Your task to perform on an android device: change notification settings in the gmail app Image 0: 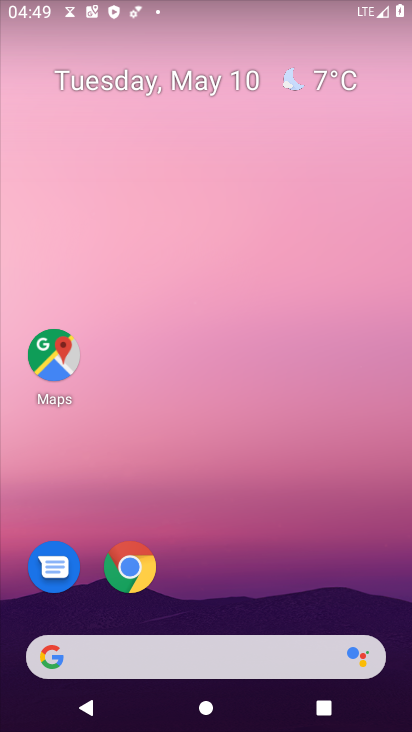
Step 0: drag from (280, 601) to (251, 110)
Your task to perform on an android device: change notification settings in the gmail app Image 1: 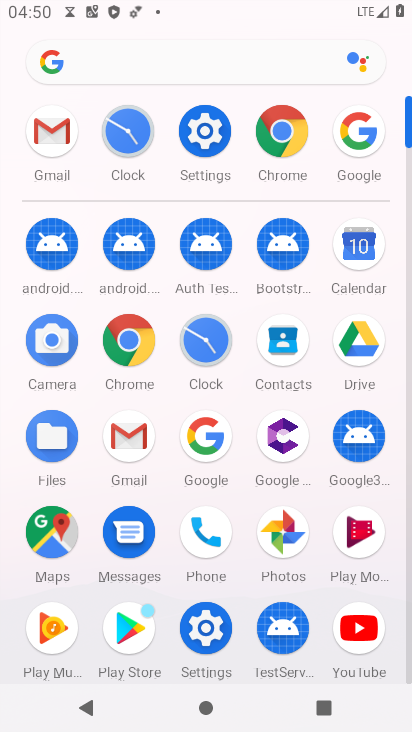
Step 1: click (123, 438)
Your task to perform on an android device: change notification settings in the gmail app Image 2: 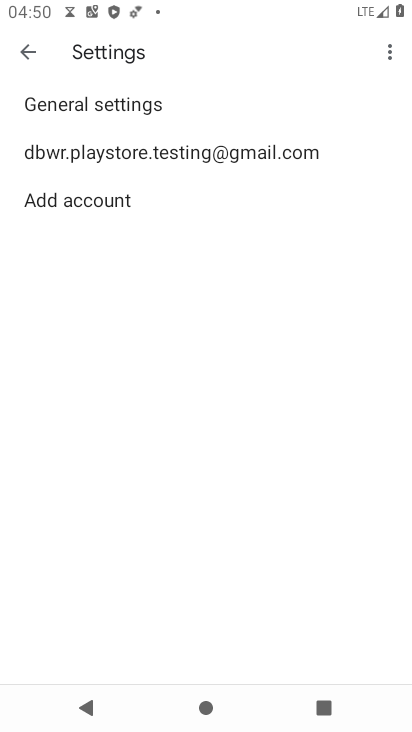
Step 2: click (178, 151)
Your task to perform on an android device: change notification settings in the gmail app Image 3: 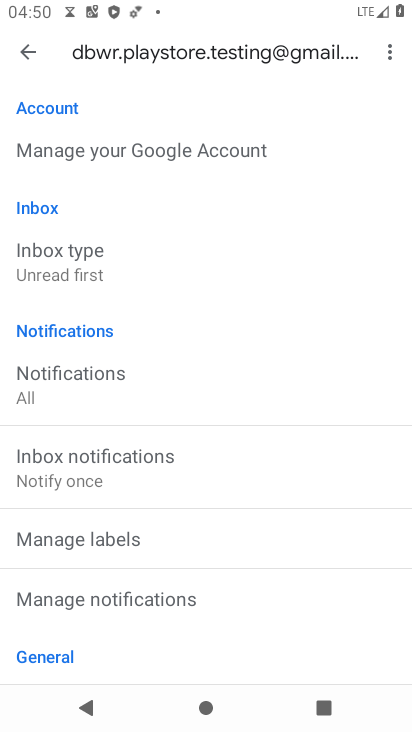
Step 3: click (77, 595)
Your task to perform on an android device: change notification settings in the gmail app Image 4: 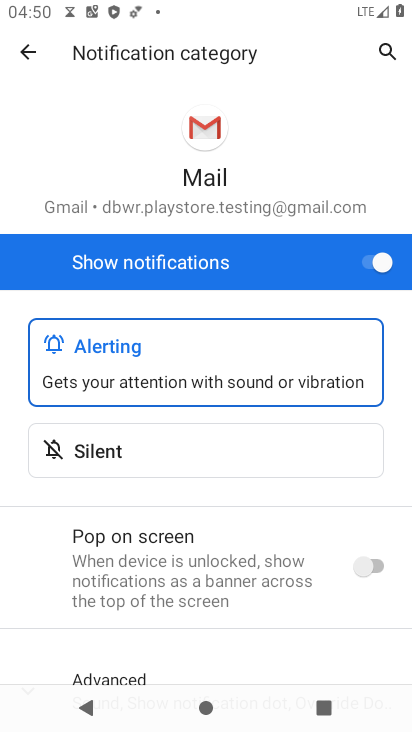
Step 4: click (377, 265)
Your task to perform on an android device: change notification settings in the gmail app Image 5: 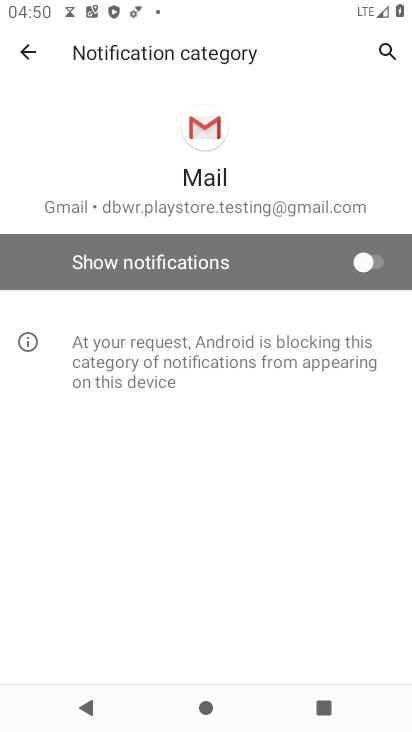
Step 5: task complete